Your task to perform on an android device: Search for vegetarian restaurants on Maps Image 0: 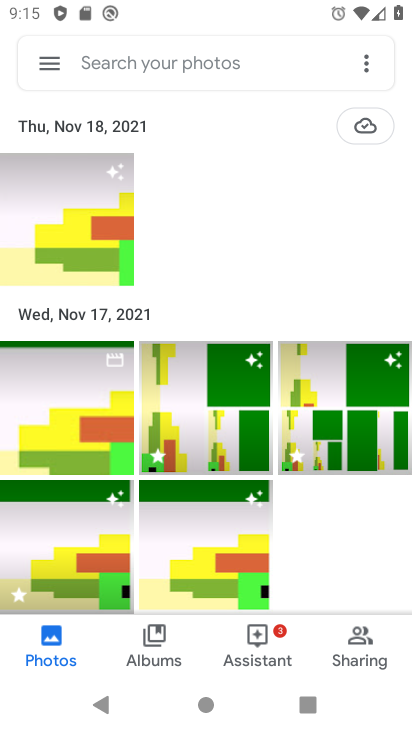
Step 0: press back button
Your task to perform on an android device: Search for vegetarian restaurants on Maps Image 1: 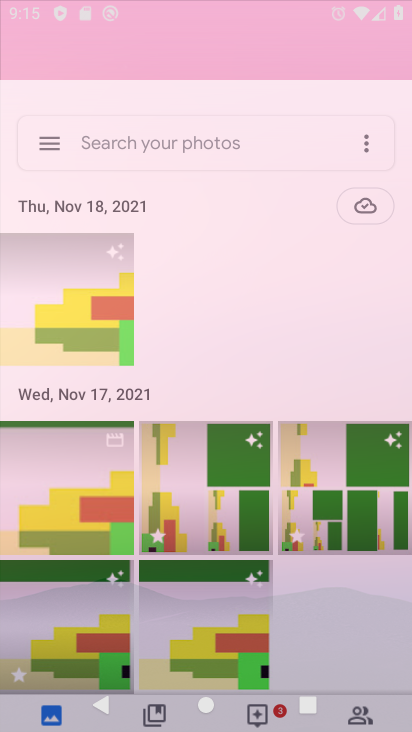
Step 1: press back button
Your task to perform on an android device: Search for vegetarian restaurants on Maps Image 2: 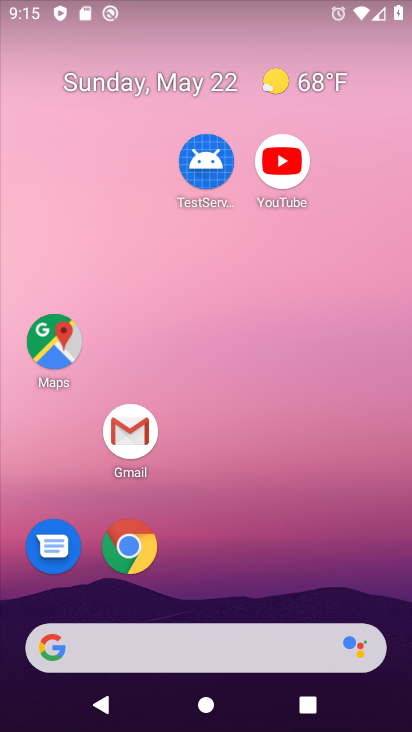
Step 2: drag from (263, 623) to (190, 117)
Your task to perform on an android device: Search for vegetarian restaurants on Maps Image 3: 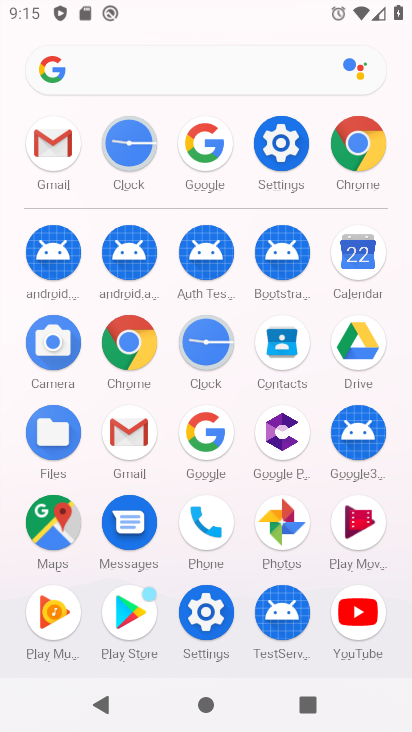
Step 3: click (53, 521)
Your task to perform on an android device: Search for vegetarian restaurants on Maps Image 4: 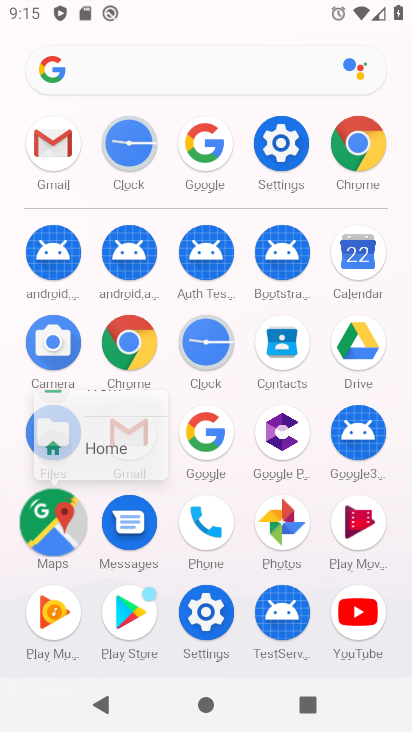
Step 4: click (53, 521)
Your task to perform on an android device: Search for vegetarian restaurants on Maps Image 5: 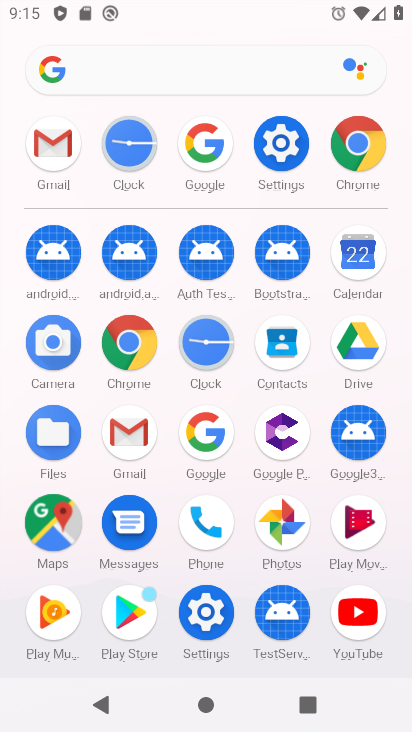
Step 5: click (53, 521)
Your task to perform on an android device: Search for vegetarian restaurants on Maps Image 6: 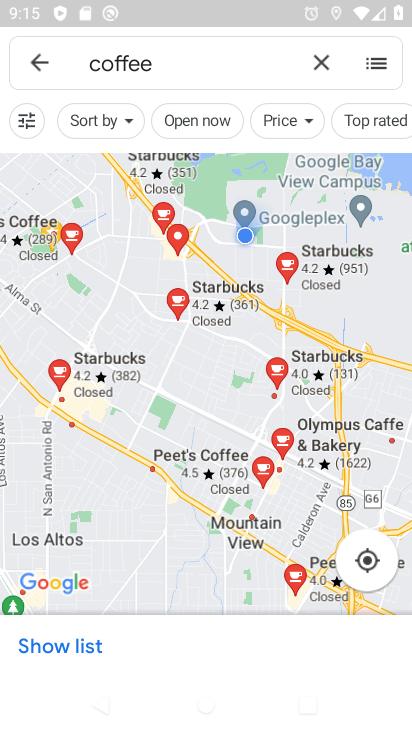
Step 6: click (316, 58)
Your task to perform on an android device: Search for vegetarian restaurants on Maps Image 7: 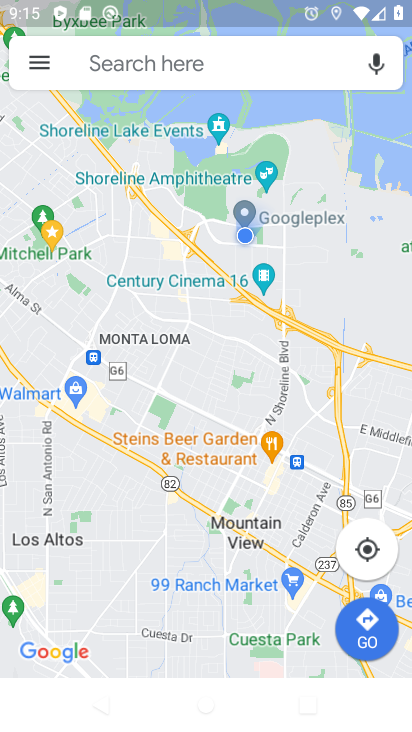
Step 7: click (71, 48)
Your task to perform on an android device: Search for vegetarian restaurants on Maps Image 8: 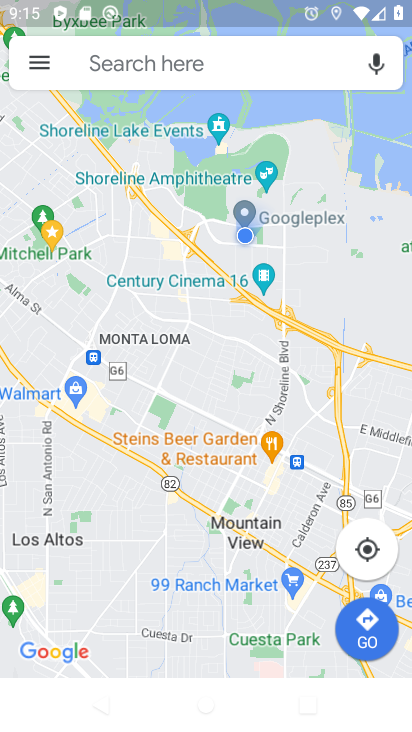
Step 8: click (107, 63)
Your task to perform on an android device: Search for vegetarian restaurants on Maps Image 9: 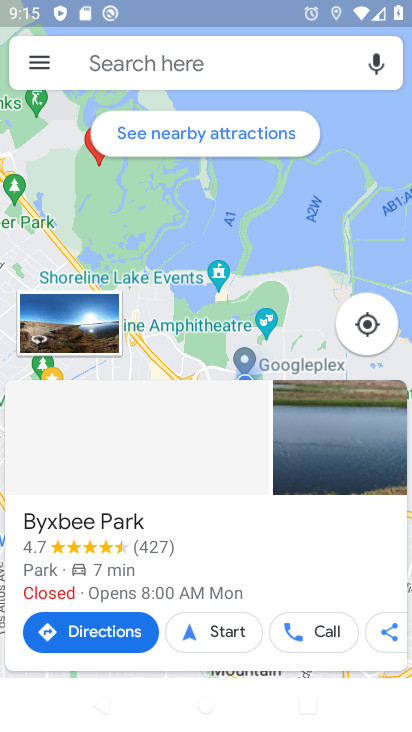
Step 9: click (87, 67)
Your task to perform on an android device: Search for vegetarian restaurants on Maps Image 10: 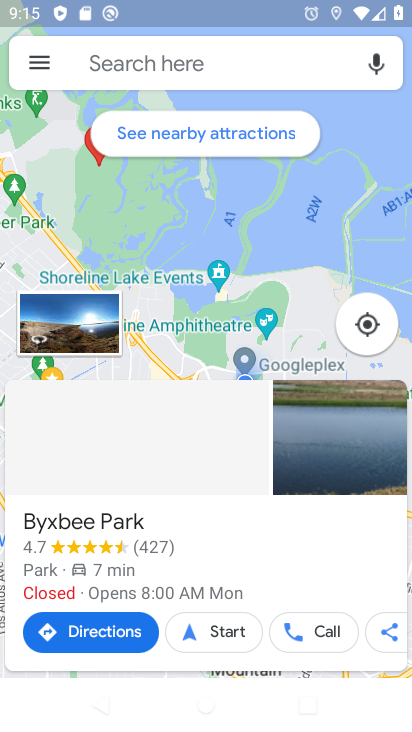
Step 10: click (94, 66)
Your task to perform on an android device: Search for vegetarian restaurants on Maps Image 11: 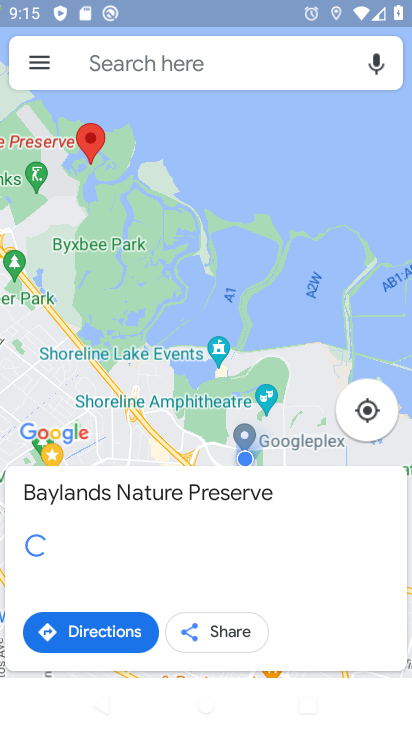
Step 11: click (94, 55)
Your task to perform on an android device: Search for vegetarian restaurants on Maps Image 12: 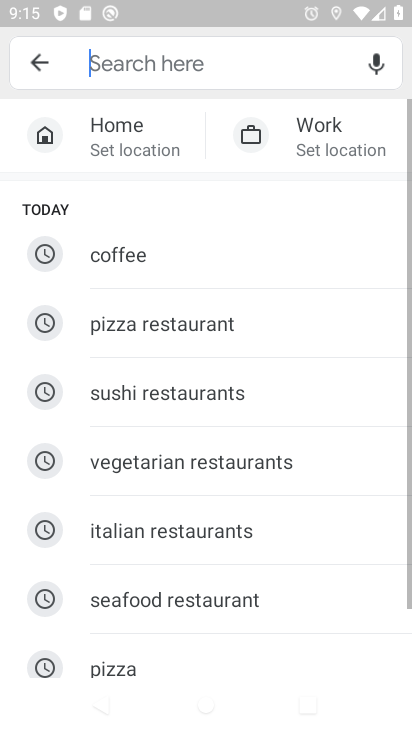
Step 12: click (94, 55)
Your task to perform on an android device: Search for vegetarian restaurants on Maps Image 13: 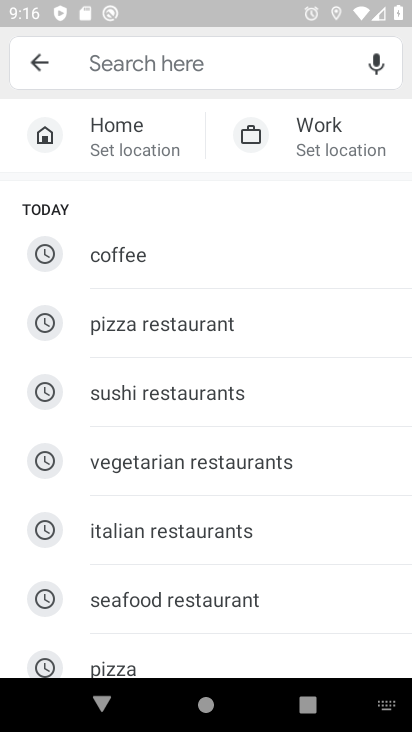
Step 13: click (174, 469)
Your task to perform on an android device: Search for vegetarian restaurants on Maps Image 14: 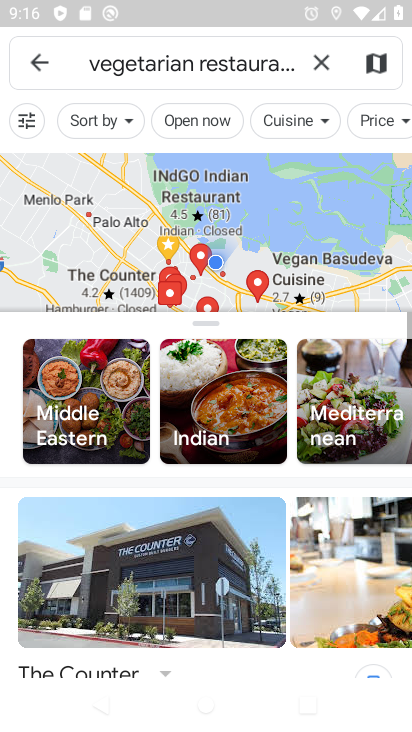
Step 14: task complete